Your task to perform on an android device: turn off translation in the chrome app Image 0: 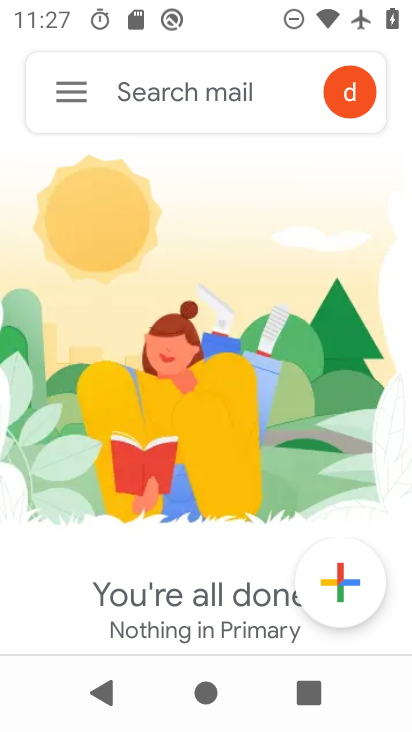
Step 0: press home button
Your task to perform on an android device: turn off translation in the chrome app Image 1: 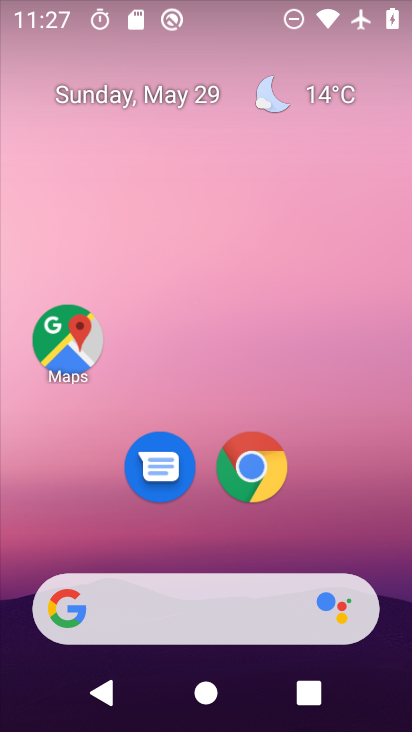
Step 1: click (246, 490)
Your task to perform on an android device: turn off translation in the chrome app Image 2: 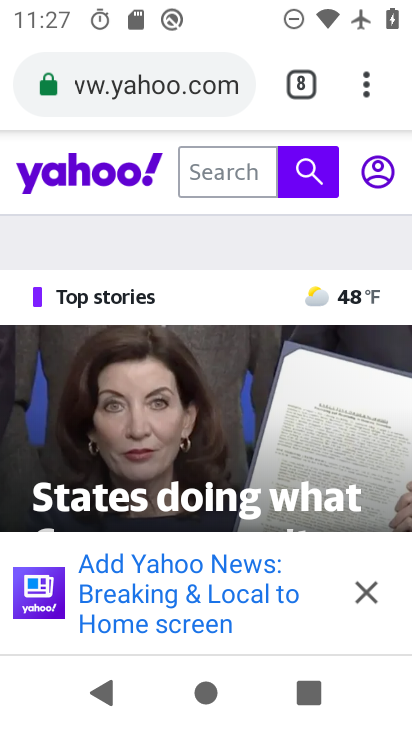
Step 2: drag from (368, 86) to (174, 509)
Your task to perform on an android device: turn off translation in the chrome app Image 3: 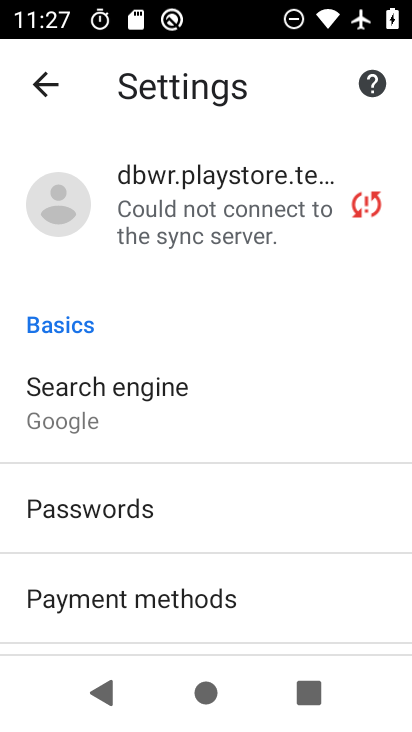
Step 3: drag from (200, 511) to (180, 187)
Your task to perform on an android device: turn off translation in the chrome app Image 4: 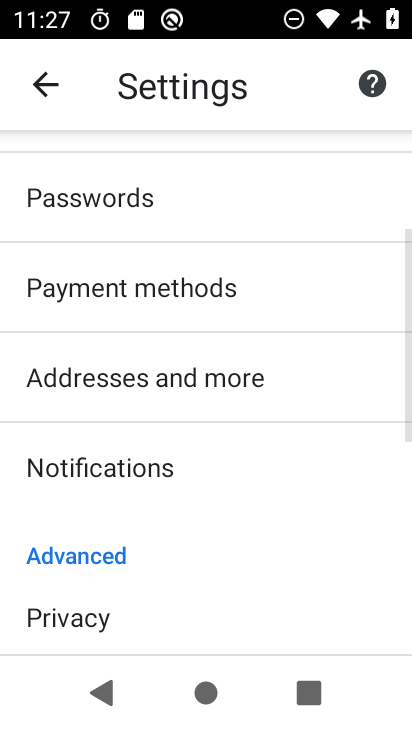
Step 4: drag from (186, 431) to (172, 198)
Your task to perform on an android device: turn off translation in the chrome app Image 5: 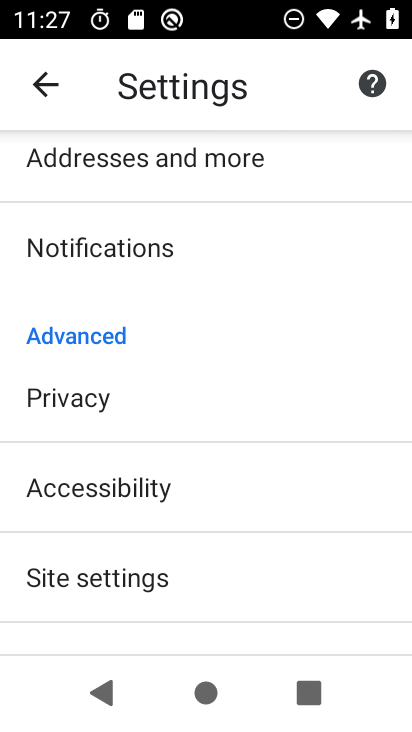
Step 5: drag from (239, 564) to (205, 311)
Your task to perform on an android device: turn off translation in the chrome app Image 6: 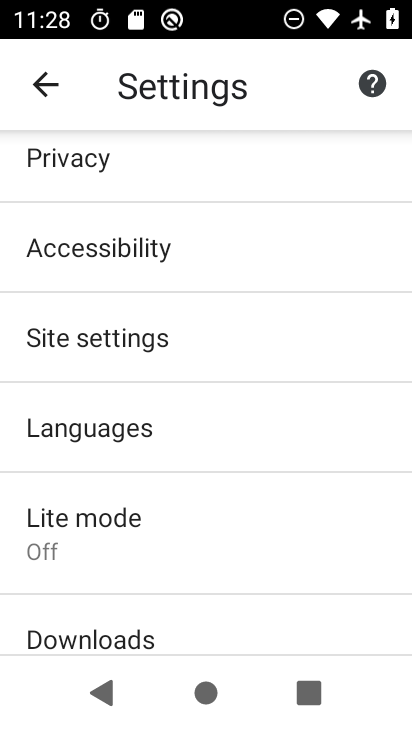
Step 6: drag from (201, 546) to (203, 326)
Your task to perform on an android device: turn off translation in the chrome app Image 7: 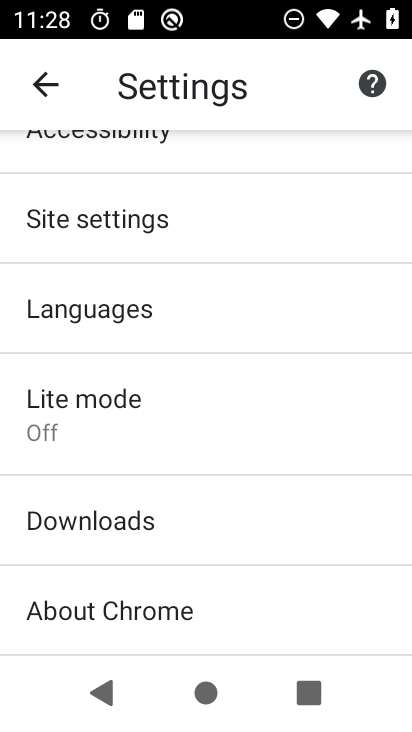
Step 7: drag from (210, 559) to (216, 489)
Your task to perform on an android device: turn off translation in the chrome app Image 8: 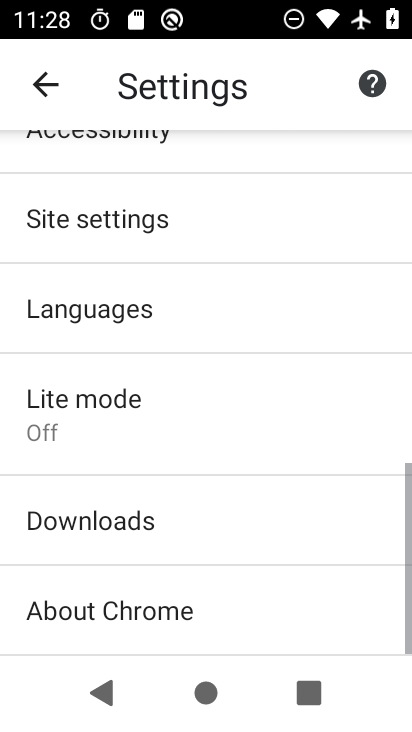
Step 8: click (166, 305)
Your task to perform on an android device: turn off translation in the chrome app Image 9: 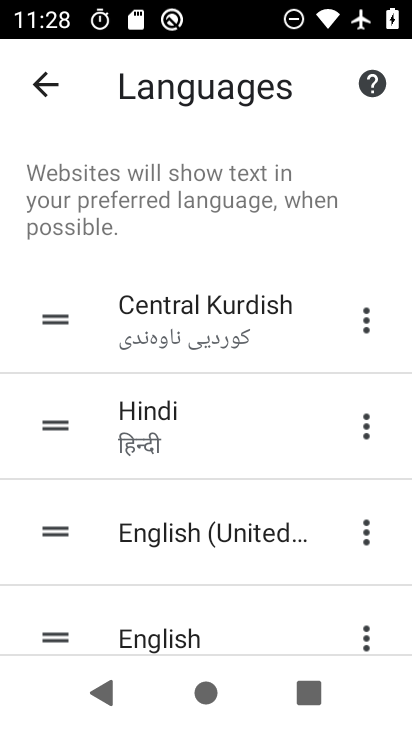
Step 9: drag from (272, 604) to (242, 248)
Your task to perform on an android device: turn off translation in the chrome app Image 10: 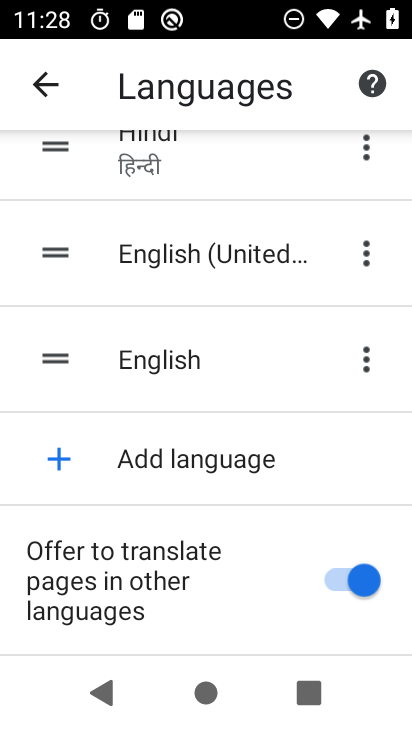
Step 10: click (334, 586)
Your task to perform on an android device: turn off translation in the chrome app Image 11: 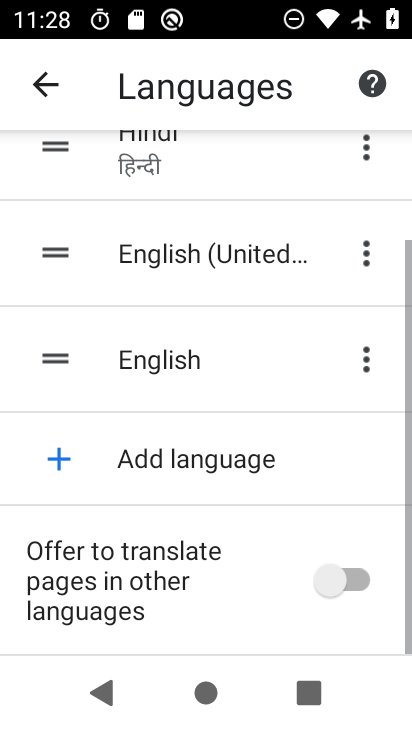
Step 11: task complete